Your task to perform on an android device: Open Google Chrome and open the bookmarks view Image 0: 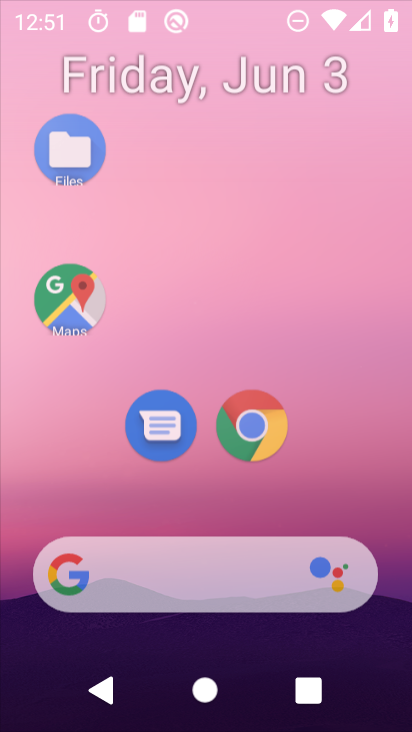
Step 0: press home button
Your task to perform on an android device: Open Google Chrome and open the bookmarks view Image 1: 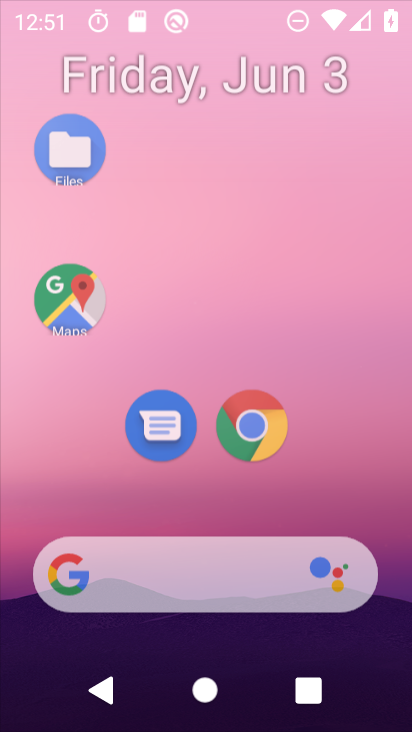
Step 1: click (119, 93)
Your task to perform on an android device: Open Google Chrome and open the bookmarks view Image 2: 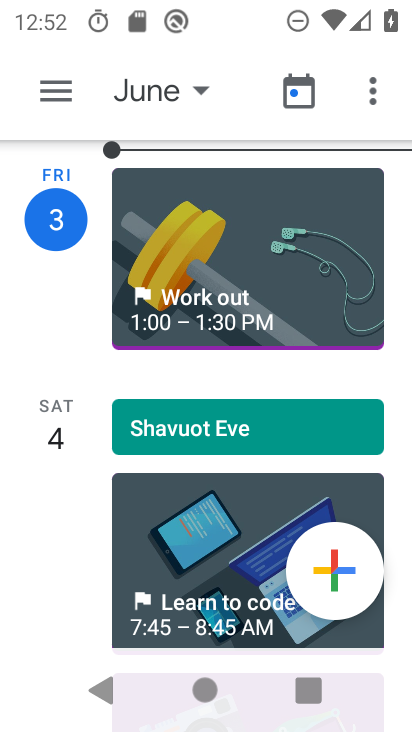
Step 2: press back button
Your task to perform on an android device: Open Google Chrome and open the bookmarks view Image 3: 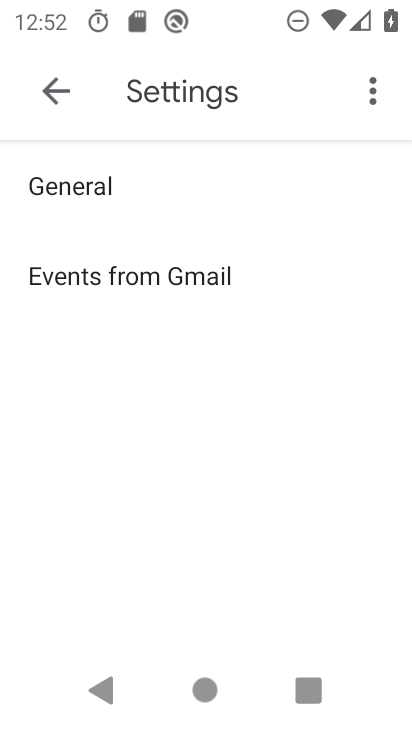
Step 3: click (50, 94)
Your task to perform on an android device: Open Google Chrome and open the bookmarks view Image 4: 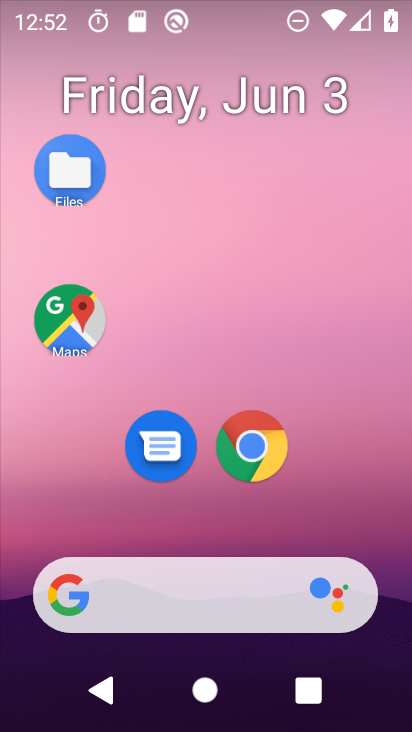
Step 4: drag from (249, 676) to (177, 98)
Your task to perform on an android device: Open Google Chrome and open the bookmarks view Image 5: 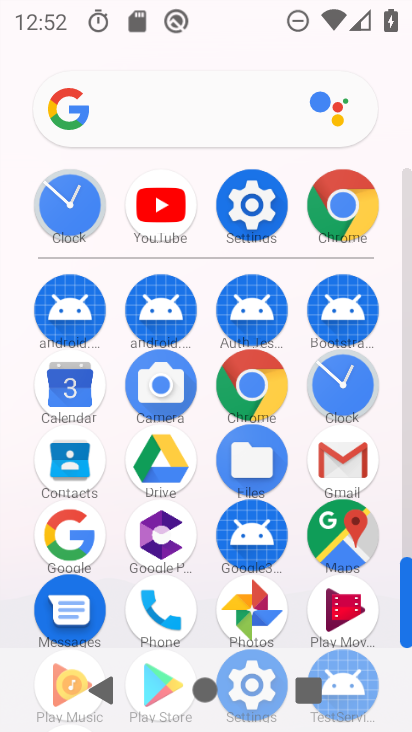
Step 5: click (243, 387)
Your task to perform on an android device: Open Google Chrome and open the bookmarks view Image 6: 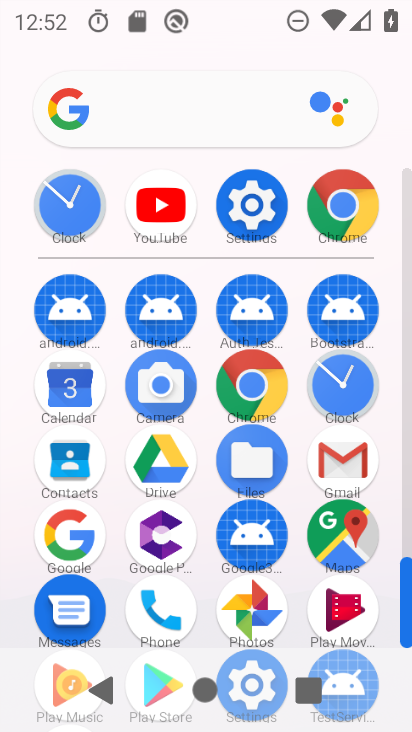
Step 6: click (244, 386)
Your task to perform on an android device: Open Google Chrome and open the bookmarks view Image 7: 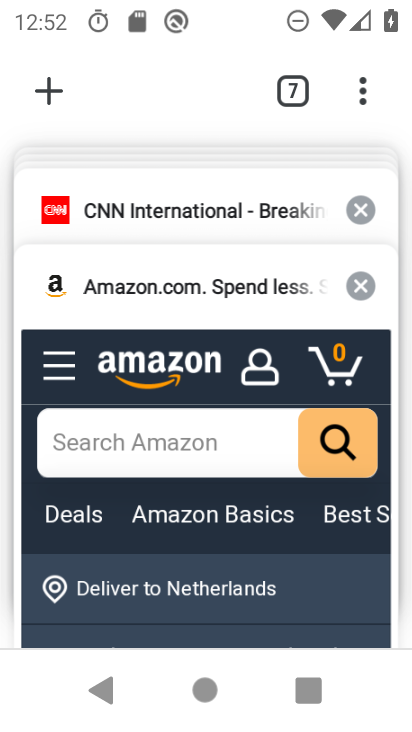
Step 7: drag from (358, 100) to (405, 400)
Your task to perform on an android device: Open Google Chrome and open the bookmarks view Image 8: 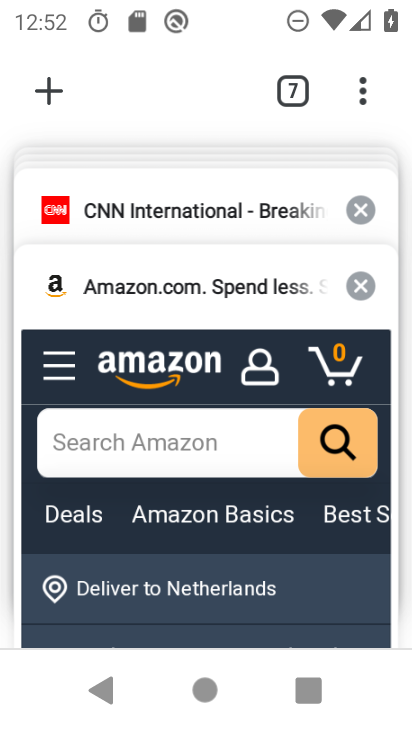
Step 8: click (335, 596)
Your task to perform on an android device: Open Google Chrome and open the bookmarks view Image 9: 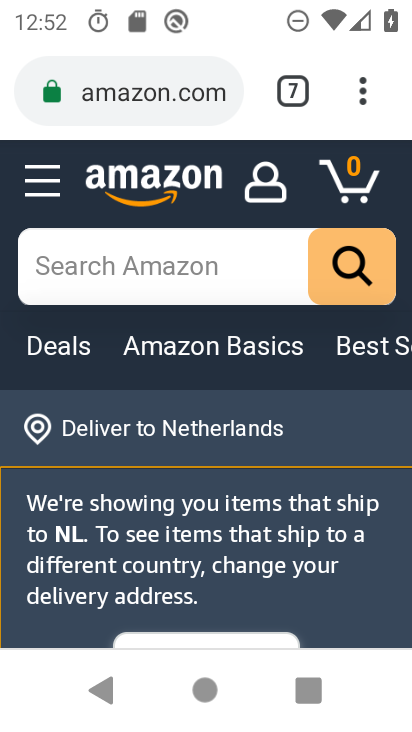
Step 9: drag from (366, 97) to (84, 355)
Your task to perform on an android device: Open Google Chrome and open the bookmarks view Image 10: 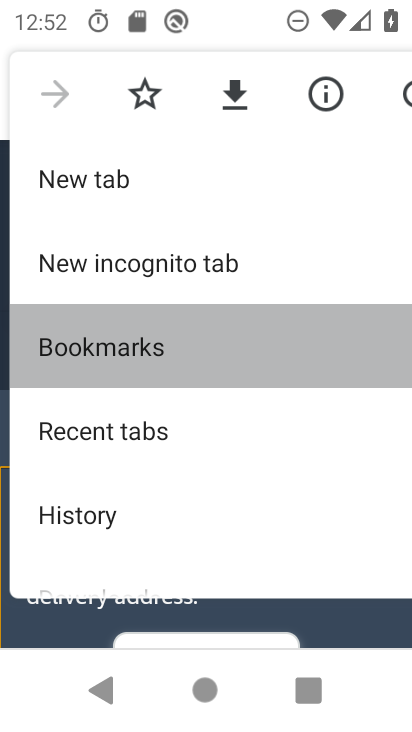
Step 10: click (84, 355)
Your task to perform on an android device: Open Google Chrome and open the bookmarks view Image 11: 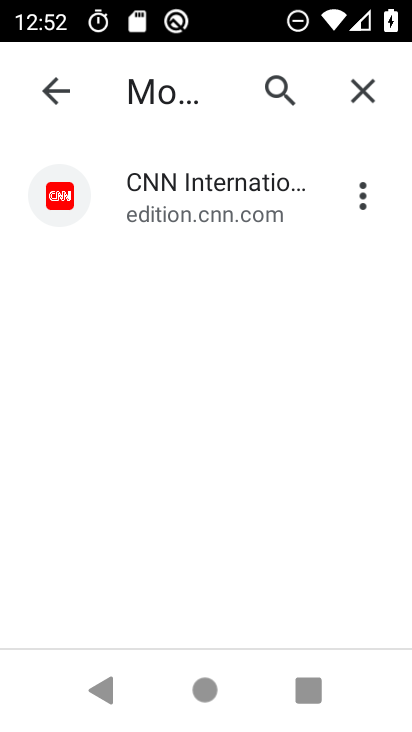
Step 11: task complete